Your task to perform on an android device: toggle priority inbox in the gmail app Image 0: 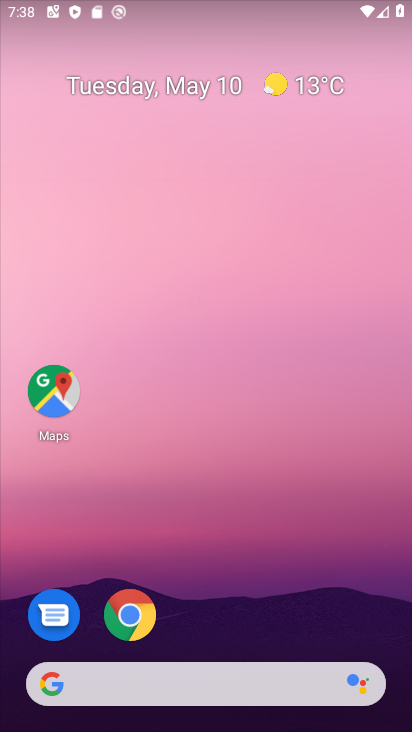
Step 0: drag from (216, 534) to (150, 166)
Your task to perform on an android device: toggle priority inbox in the gmail app Image 1: 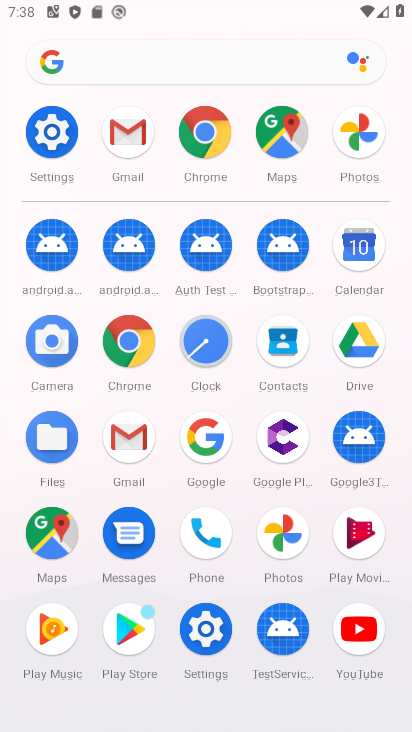
Step 1: click (127, 140)
Your task to perform on an android device: toggle priority inbox in the gmail app Image 2: 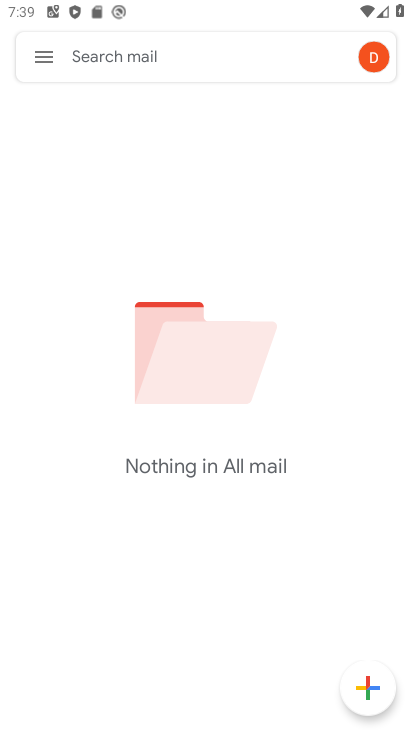
Step 2: click (44, 54)
Your task to perform on an android device: toggle priority inbox in the gmail app Image 3: 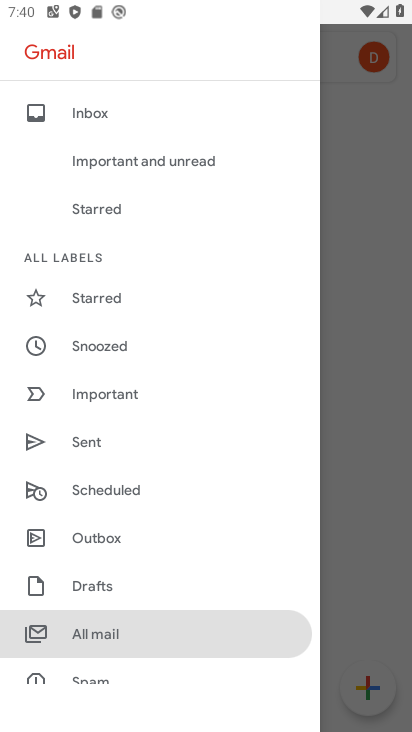
Step 3: drag from (154, 559) to (68, 231)
Your task to perform on an android device: toggle priority inbox in the gmail app Image 4: 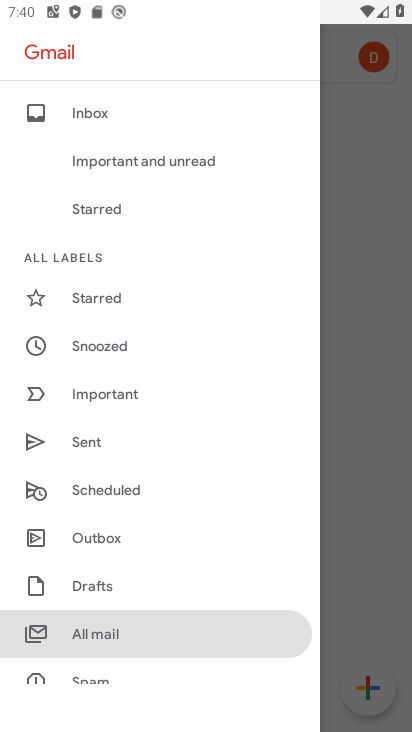
Step 4: drag from (161, 576) to (163, 313)
Your task to perform on an android device: toggle priority inbox in the gmail app Image 5: 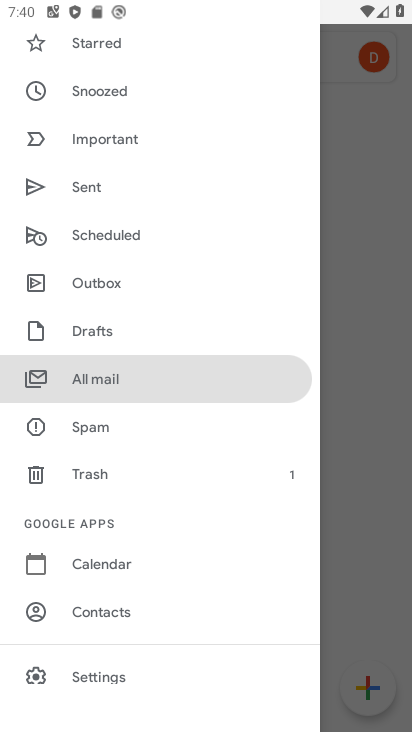
Step 5: drag from (205, 478) to (161, 192)
Your task to perform on an android device: toggle priority inbox in the gmail app Image 6: 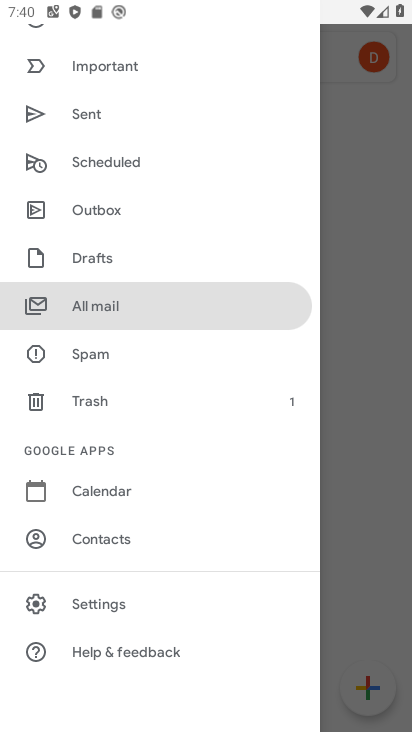
Step 6: click (79, 594)
Your task to perform on an android device: toggle priority inbox in the gmail app Image 7: 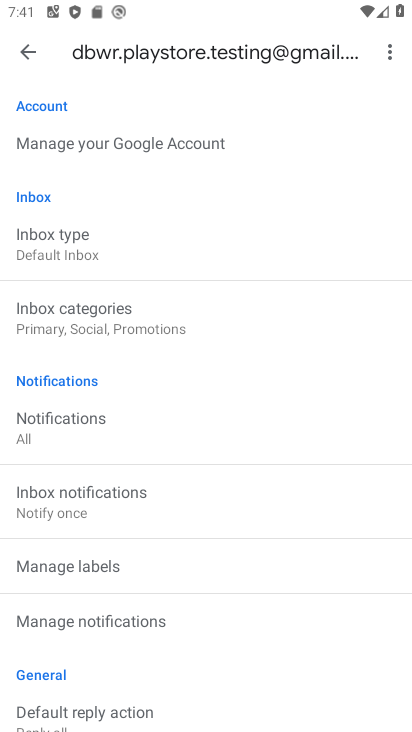
Step 7: click (66, 229)
Your task to perform on an android device: toggle priority inbox in the gmail app Image 8: 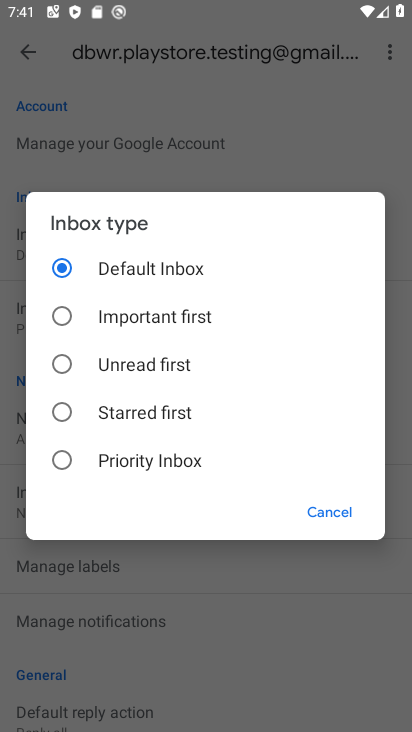
Step 8: click (61, 463)
Your task to perform on an android device: toggle priority inbox in the gmail app Image 9: 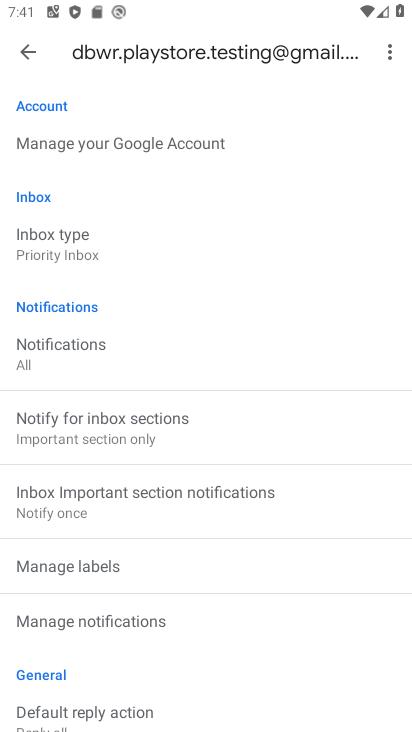
Step 9: task complete